Your task to perform on an android device: Go to CNN.com Image 0: 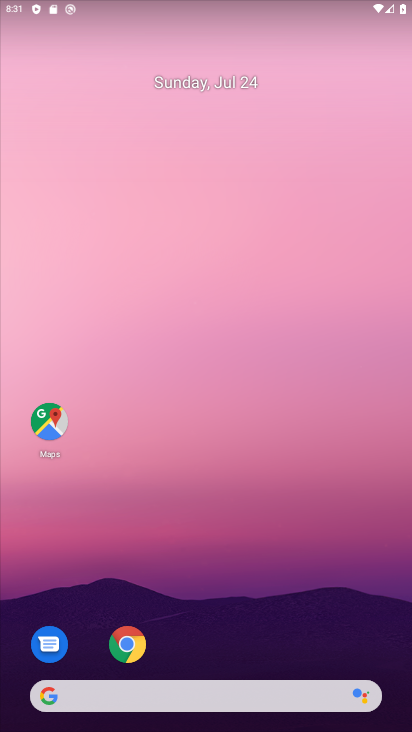
Step 0: click (125, 635)
Your task to perform on an android device: Go to CNN.com Image 1: 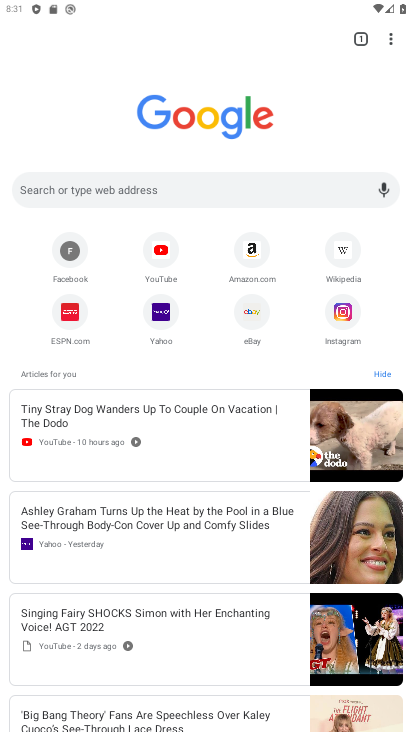
Step 1: click (62, 187)
Your task to perform on an android device: Go to CNN.com Image 2: 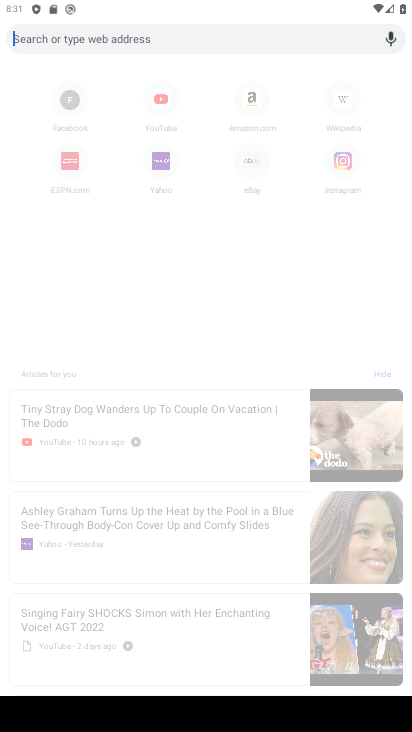
Step 2: type " CNN.com"
Your task to perform on an android device: Go to CNN.com Image 3: 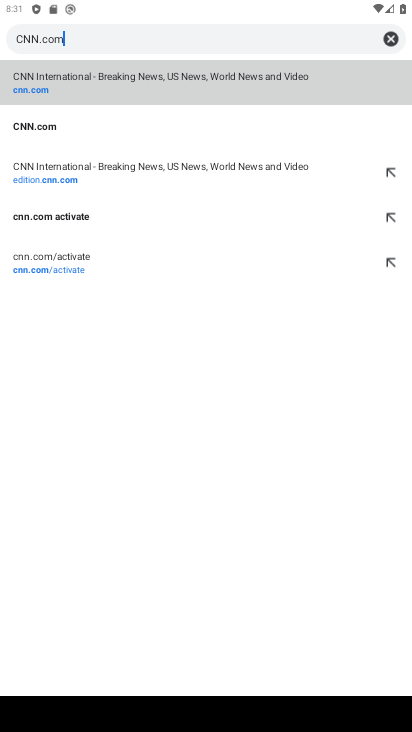
Step 3: click (33, 91)
Your task to perform on an android device: Go to CNN.com Image 4: 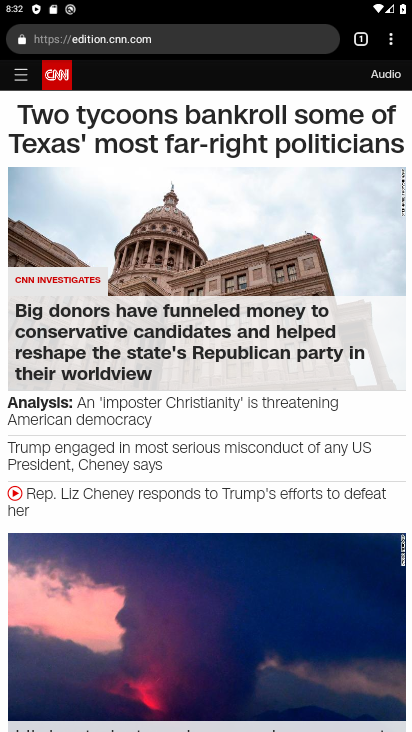
Step 4: click (311, 227)
Your task to perform on an android device: Go to CNN.com Image 5: 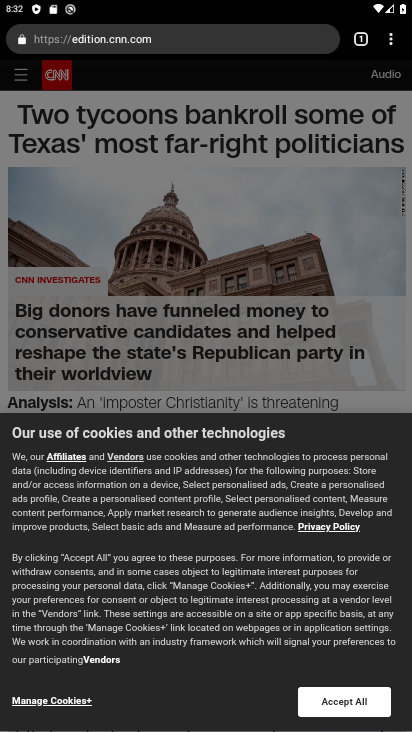
Step 5: task complete